Your task to perform on an android device: turn on the 24-hour format for clock Image 0: 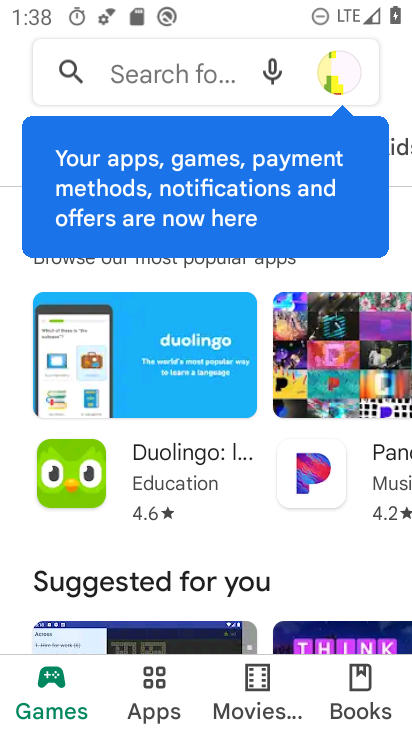
Step 0: press home button
Your task to perform on an android device: turn on the 24-hour format for clock Image 1: 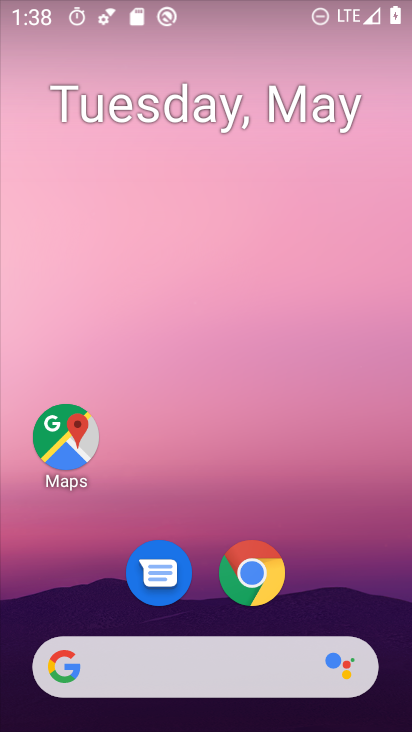
Step 1: drag from (370, 589) to (286, 87)
Your task to perform on an android device: turn on the 24-hour format for clock Image 2: 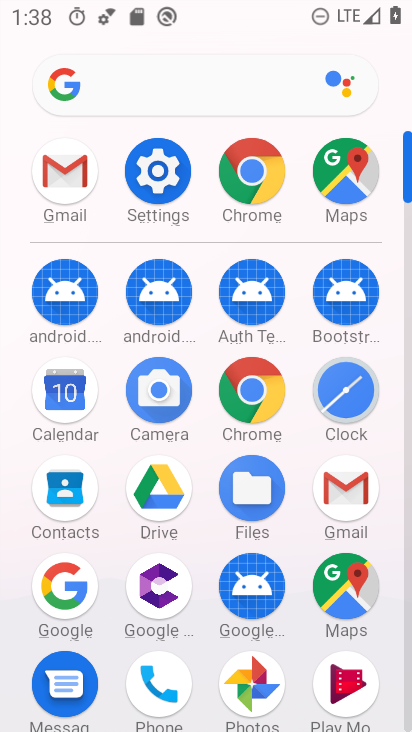
Step 2: click (368, 390)
Your task to perform on an android device: turn on the 24-hour format for clock Image 3: 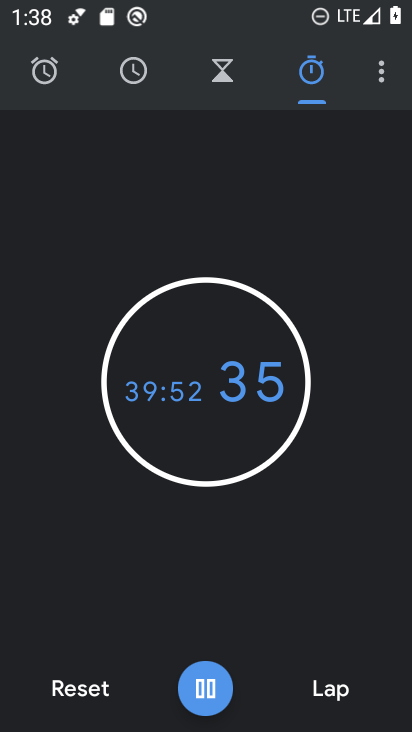
Step 3: click (380, 77)
Your task to perform on an android device: turn on the 24-hour format for clock Image 4: 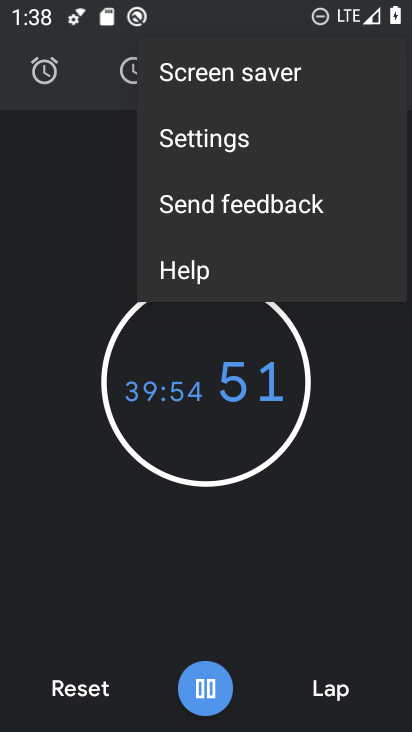
Step 4: click (233, 157)
Your task to perform on an android device: turn on the 24-hour format for clock Image 5: 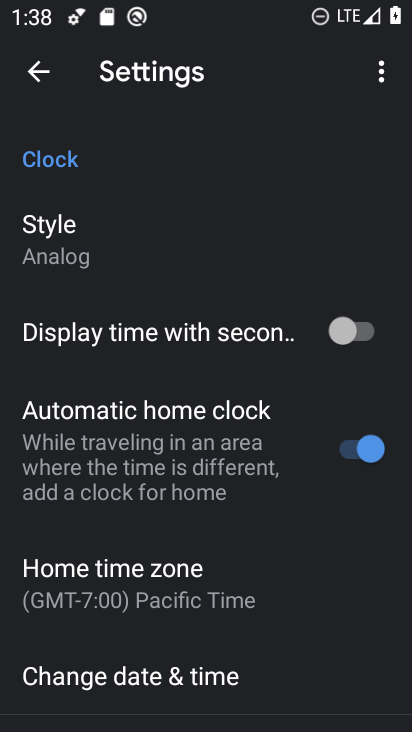
Step 5: drag from (162, 607) to (153, 287)
Your task to perform on an android device: turn on the 24-hour format for clock Image 6: 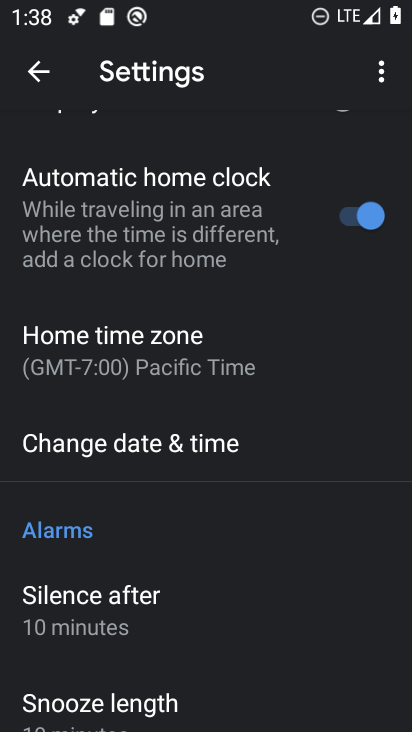
Step 6: click (121, 455)
Your task to perform on an android device: turn on the 24-hour format for clock Image 7: 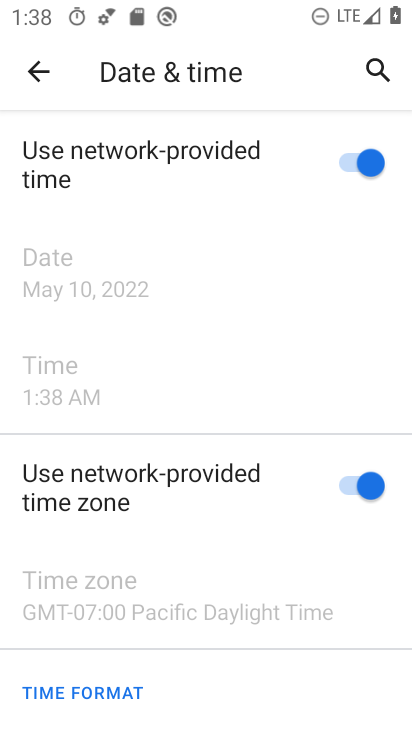
Step 7: task complete